Your task to perform on an android device: toggle sleep mode Image 0: 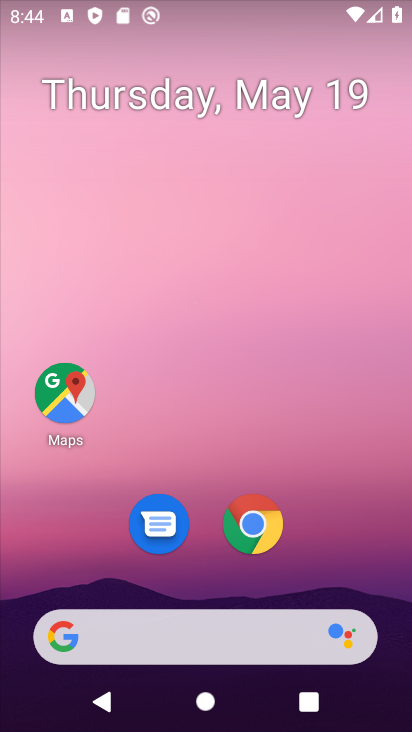
Step 0: drag from (293, 505) to (275, 123)
Your task to perform on an android device: toggle sleep mode Image 1: 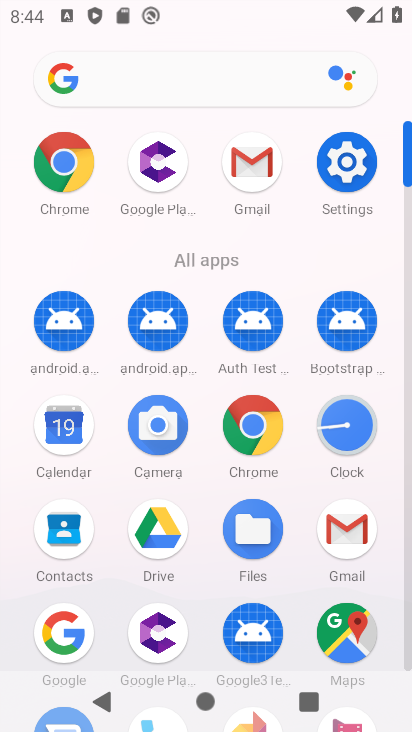
Step 1: click (335, 167)
Your task to perform on an android device: toggle sleep mode Image 2: 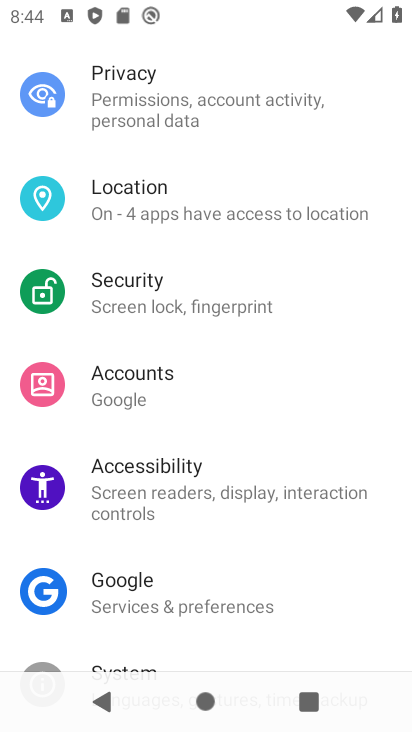
Step 2: drag from (246, 156) to (240, 612)
Your task to perform on an android device: toggle sleep mode Image 3: 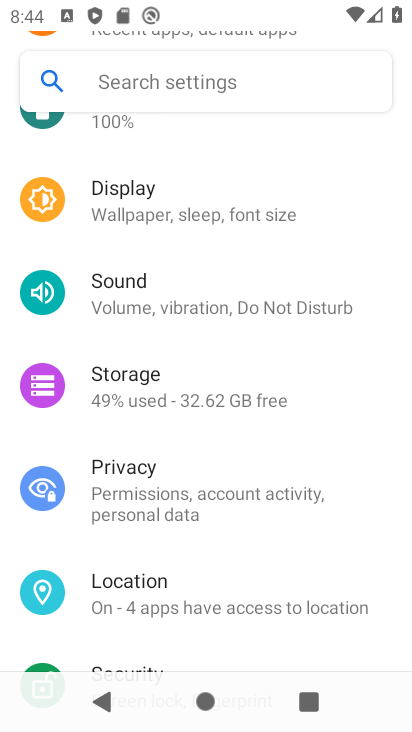
Step 3: click (227, 187)
Your task to perform on an android device: toggle sleep mode Image 4: 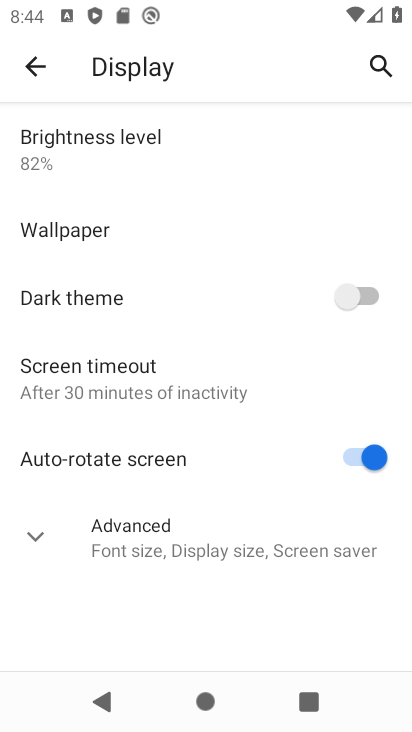
Step 4: click (30, 534)
Your task to perform on an android device: toggle sleep mode Image 5: 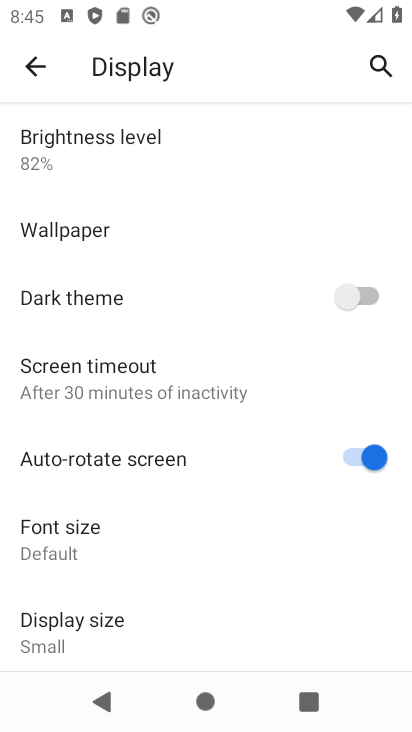
Step 5: task complete